Your task to perform on an android device: Go to Amazon Image 0: 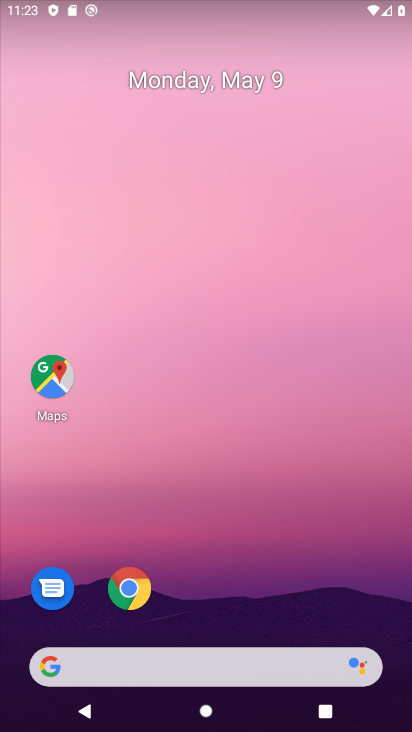
Step 0: click (133, 594)
Your task to perform on an android device: Go to Amazon Image 1: 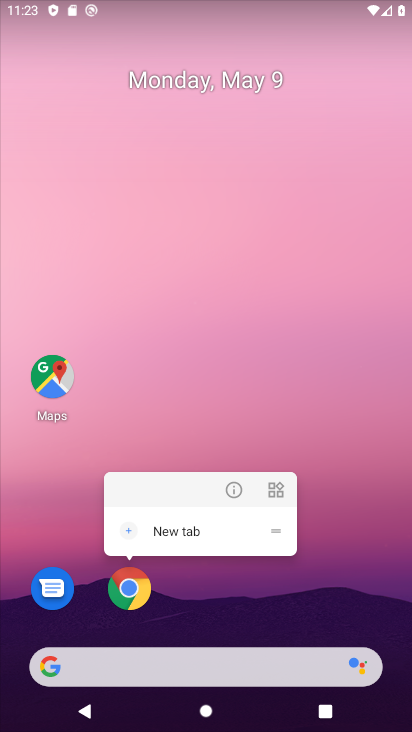
Step 1: click (139, 584)
Your task to perform on an android device: Go to Amazon Image 2: 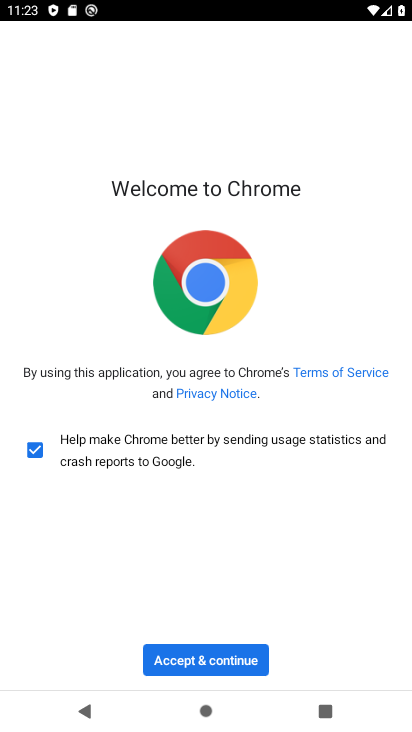
Step 2: click (191, 669)
Your task to perform on an android device: Go to Amazon Image 3: 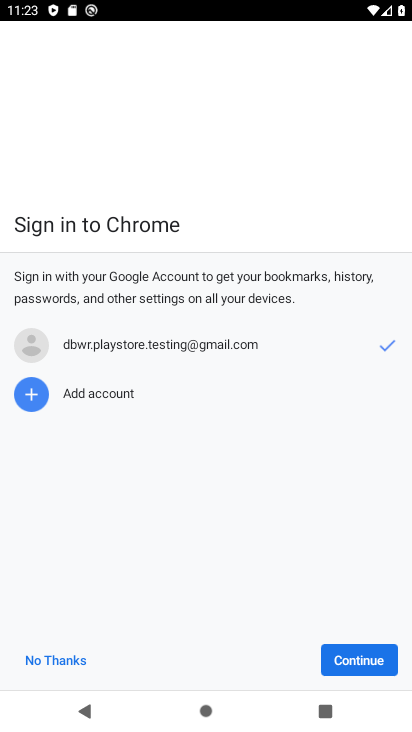
Step 3: click (359, 663)
Your task to perform on an android device: Go to Amazon Image 4: 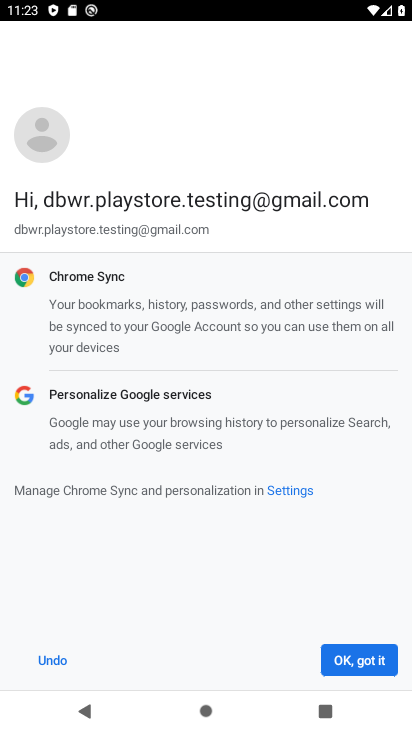
Step 4: click (352, 660)
Your task to perform on an android device: Go to Amazon Image 5: 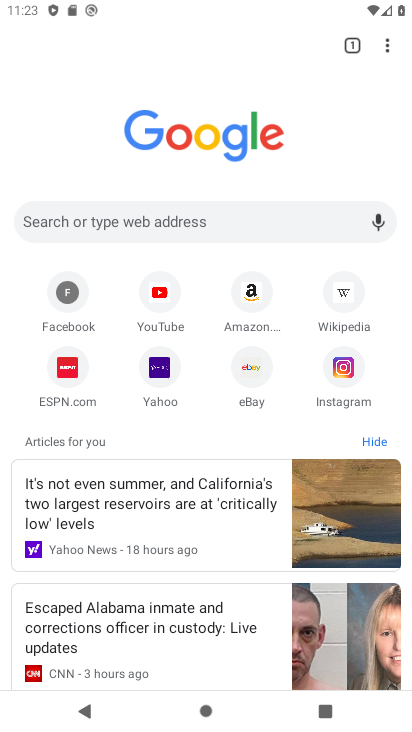
Step 5: click (259, 294)
Your task to perform on an android device: Go to Amazon Image 6: 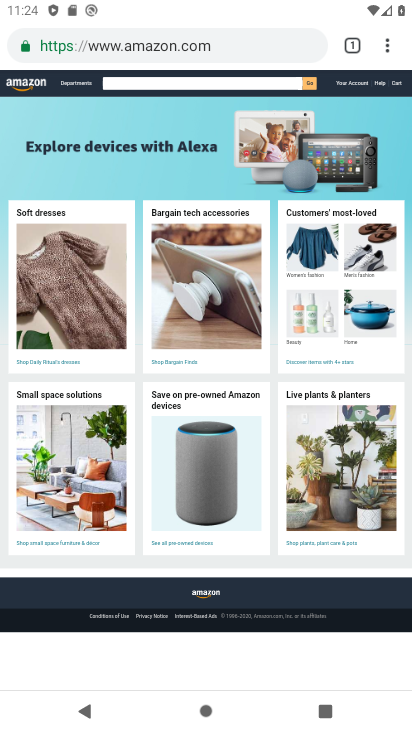
Step 6: task complete